Your task to perform on an android device: Open the calendar and show me this week's events Image 0: 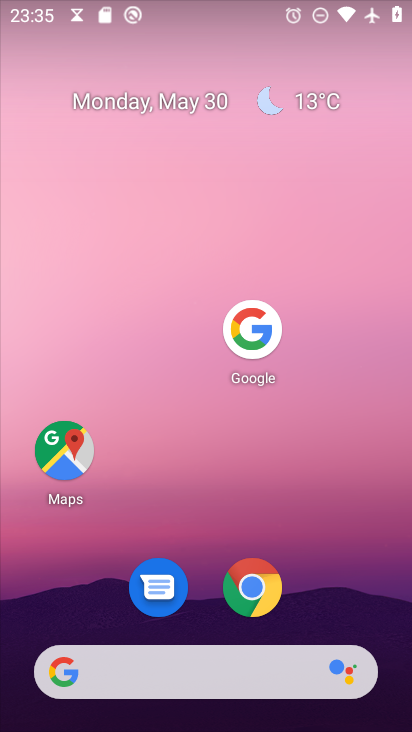
Step 0: press home button
Your task to perform on an android device: Open the calendar and show me this week's events Image 1: 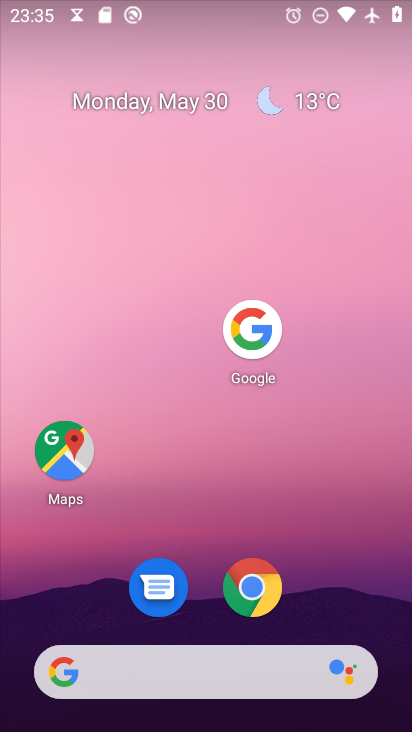
Step 1: drag from (180, 677) to (289, 177)
Your task to perform on an android device: Open the calendar and show me this week's events Image 2: 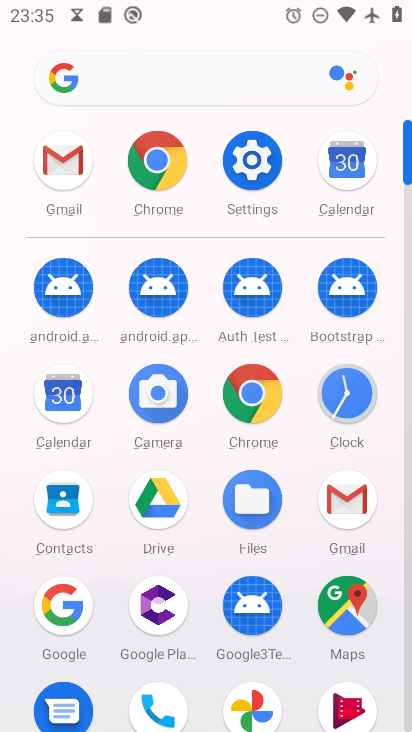
Step 2: click (327, 173)
Your task to perform on an android device: Open the calendar and show me this week's events Image 3: 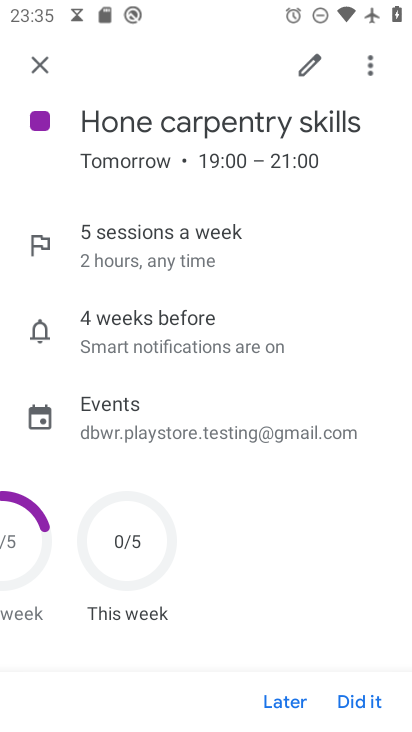
Step 3: click (36, 63)
Your task to perform on an android device: Open the calendar and show me this week's events Image 4: 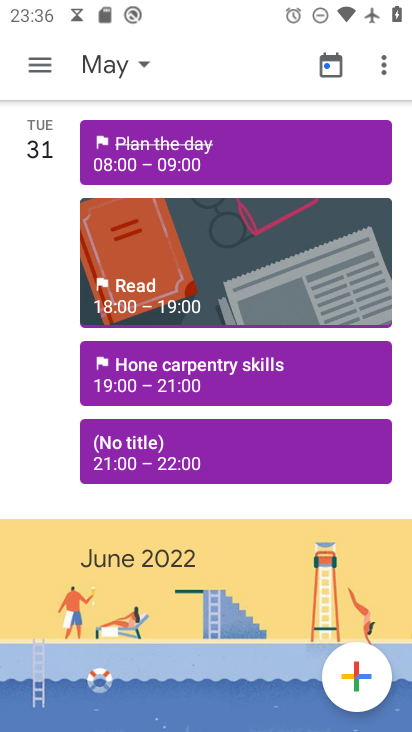
Step 4: task complete